Your task to perform on an android device: find photos in the google photos app Image 0: 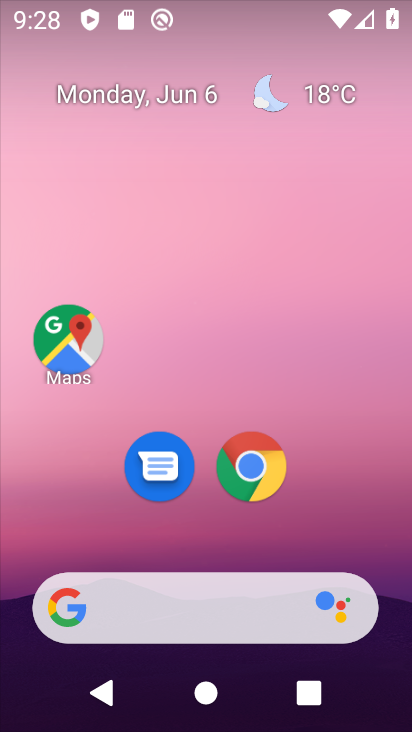
Step 0: drag from (198, 528) to (191, 57)
Your task to perform on an android device: find photos in the google photos app Image 1: 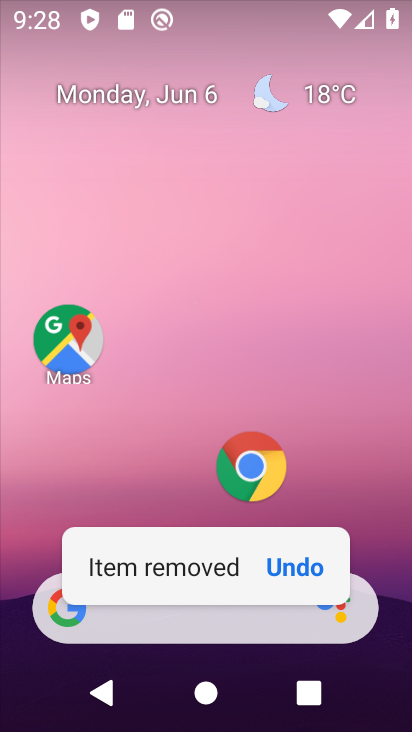
Step 1: click (301, 588)
Your task to perform on an android device: find photos in the google photos app Image 2: 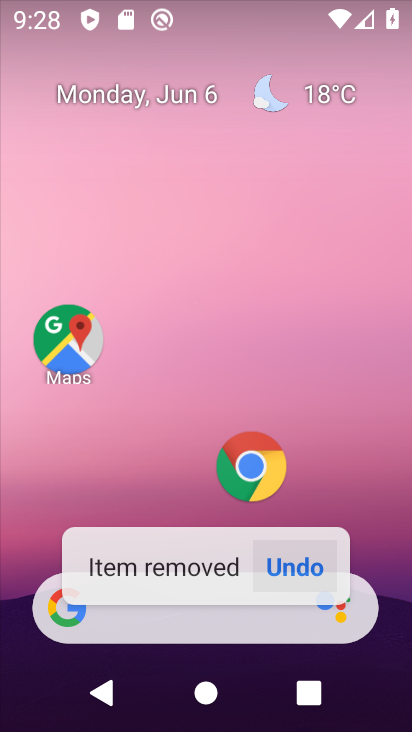
Step 2: click (292, 577)
Your task to perform on an android device: find photos in the google photos app Image 3: 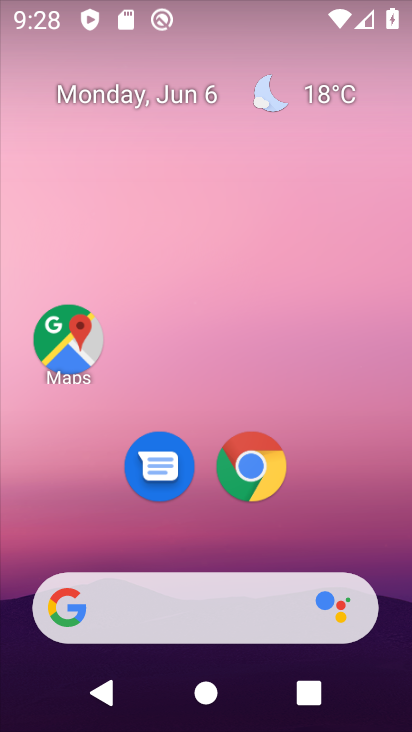
Step 3: drag from (214, 550) to (143, 8)
Your task to perform on an android device: find photos in the google photos app Image 4: 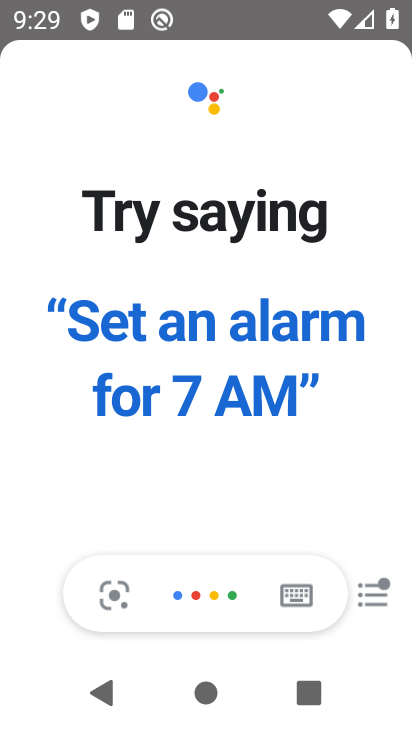
Step 4: press home button
Your task to perform on an android device: find photos in the google photos app Image 5: 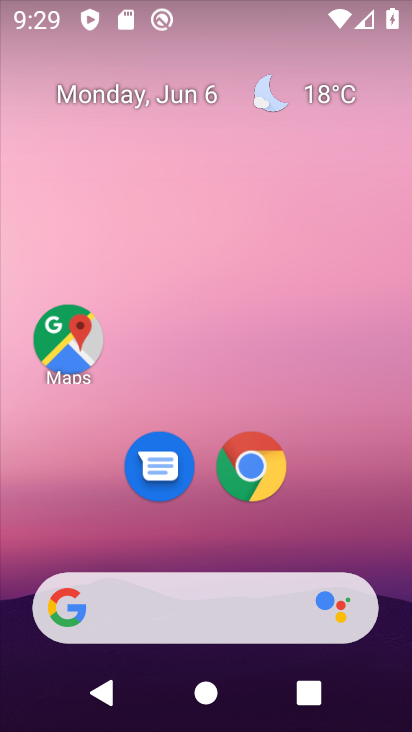
Step 5: drag from (207, 543) to (216, 18)
Your task to perform on an android device: find photos in the google photos app Image 6: 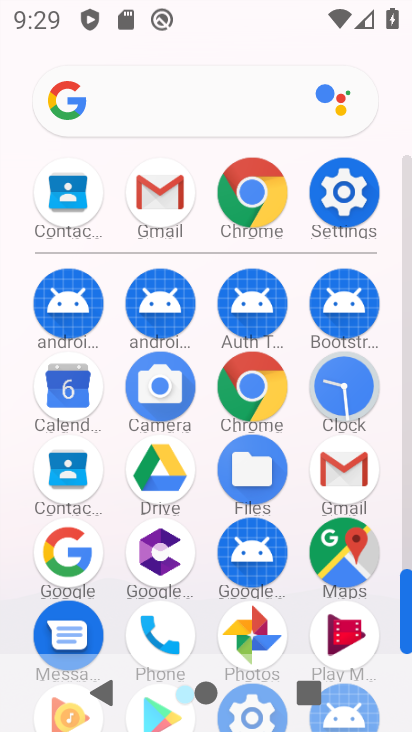
Step 6: click (261, 633)
Your task to perform on an android device: find photos in the google photos app Image 7: 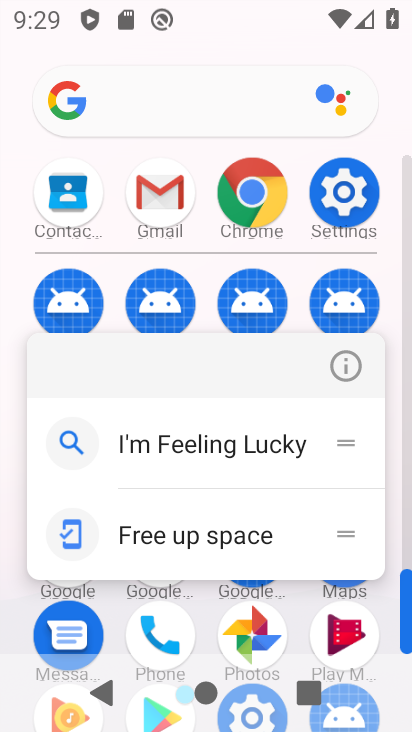
Step 7: click (261, 639)
Your task to perform on an android device: find photos in the google photos app Image 8: 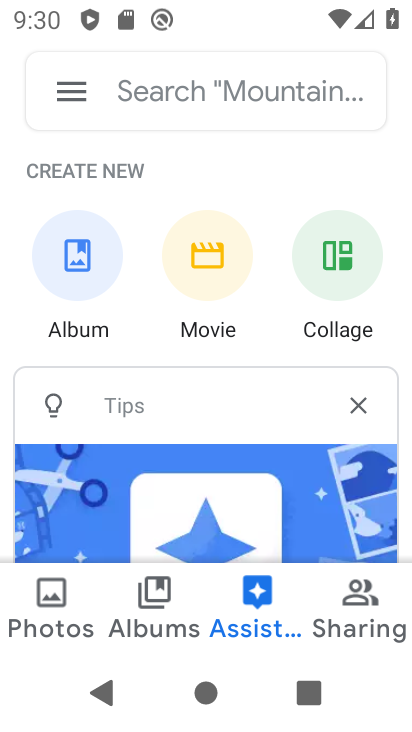
Step 8: click (71, 632)
Your task to perform on an android device: find photos in the google photos app Image 9: 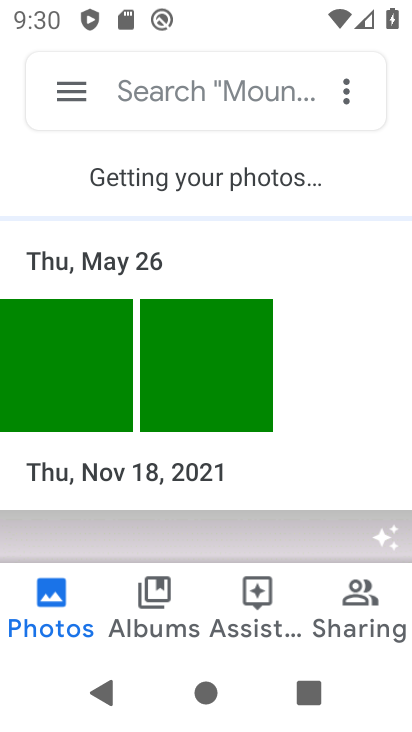
Step 9: task complete